Your task to perform on an android device: clear history in the chrome app Image 0: 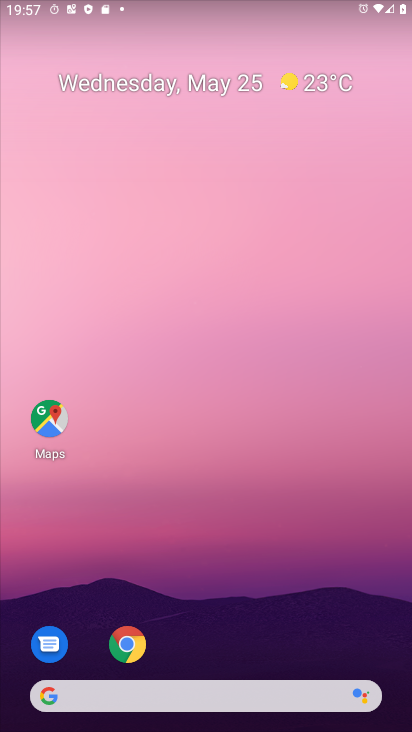
Step 0: drag from (260, 704) to (191, 218)
Your task to perform on an android device: clear history in the chrome app Image 1: 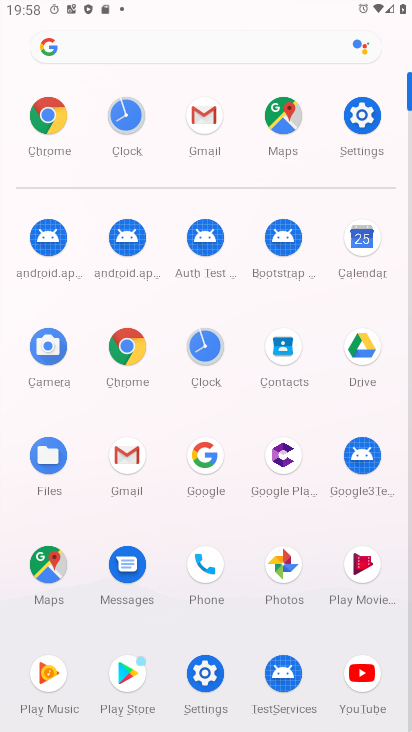
Step 1: click (40, 140)
Your task to perform on an android device: clear history in the chrome app Image 2: 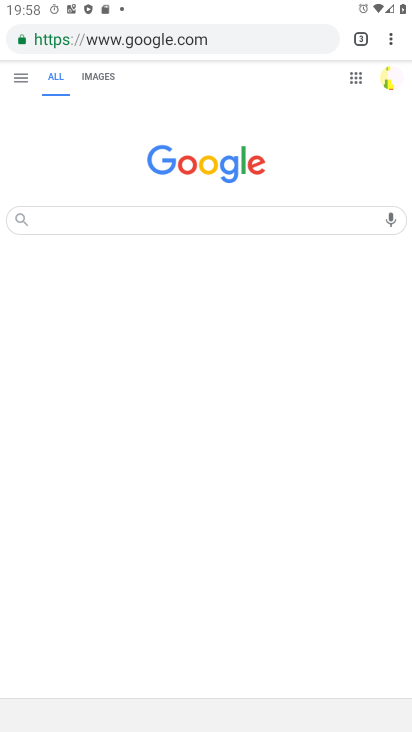
Step 2: click (386, 52)
Your task to perform on an android device: clear history in the chrome app Image 3: 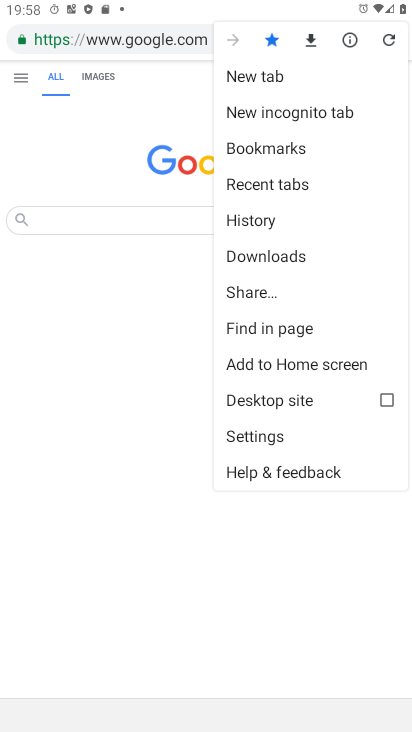
Step 3: click (271, 444)
Your task to perform on an android device: clear history in the chrome app Image 4: 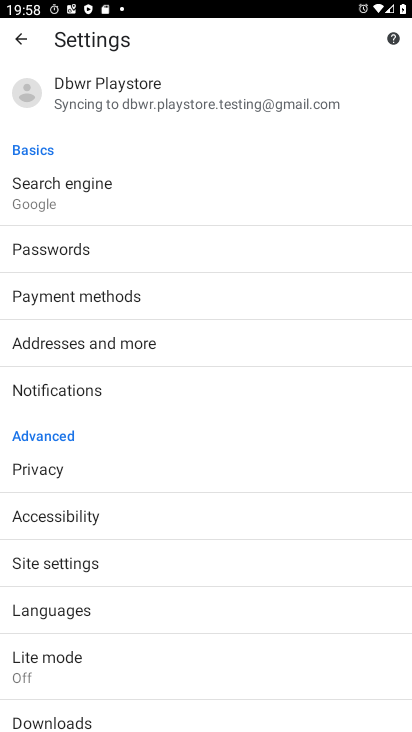
Step 4: click (56, 560)
Your task to perform on an android device: clear history in the chrome app Image 5: 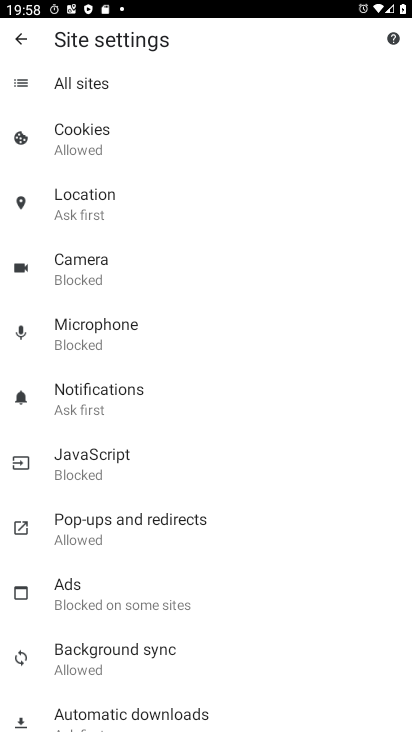
Step 5: click (29, 47)
Your task to perform on an android device: clear history in the chrome app Image 6: 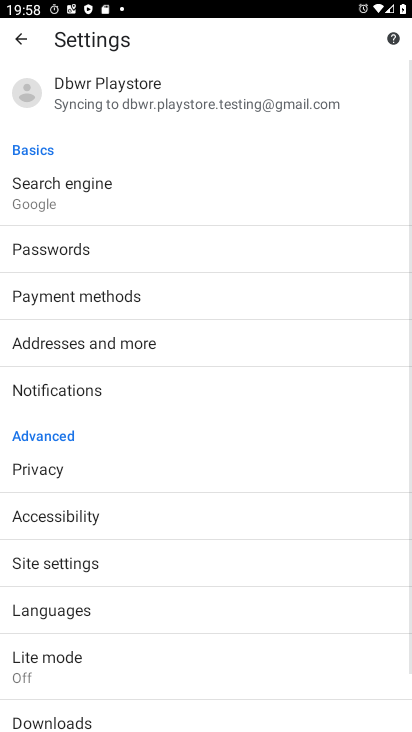
Step 6: click (71, 469)
Your task to perform on an android device: clear history in the chrome app Image 7: 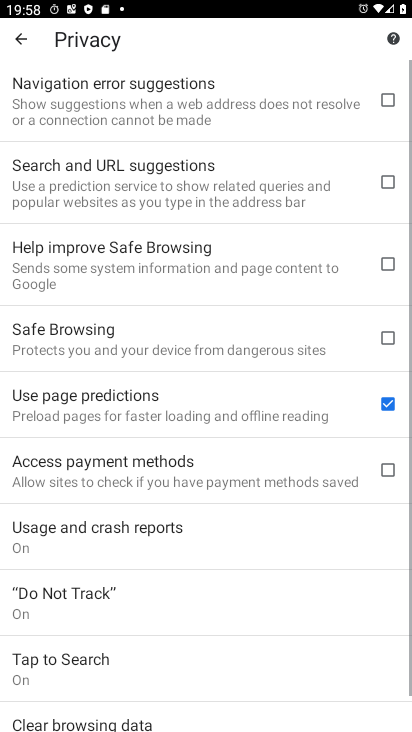
Step 7: drag from (224, 619) to (249, 383)
Your task to perform on an android device: clear history in the chrome app Image 8: 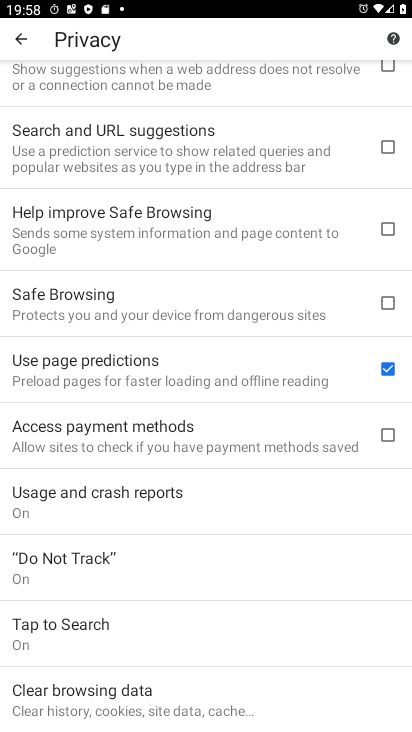
Step 8: click (139, 681)
Your task to perform on an android device: clear history in the chrome app Image 9: 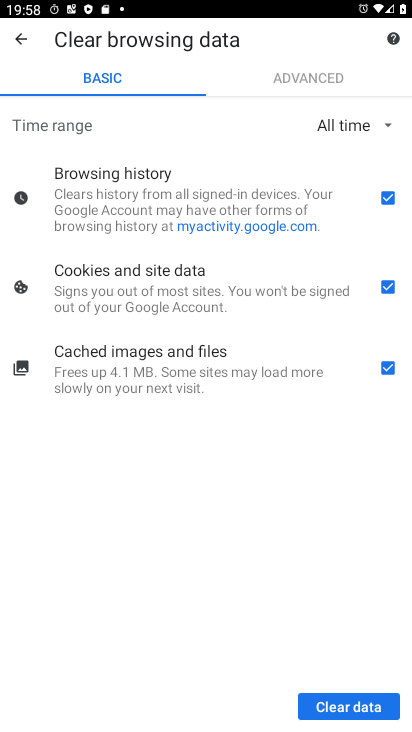
Step 9: click (388, 363)
Your task to perform on an android device: clear history in the chrome app Image 10: 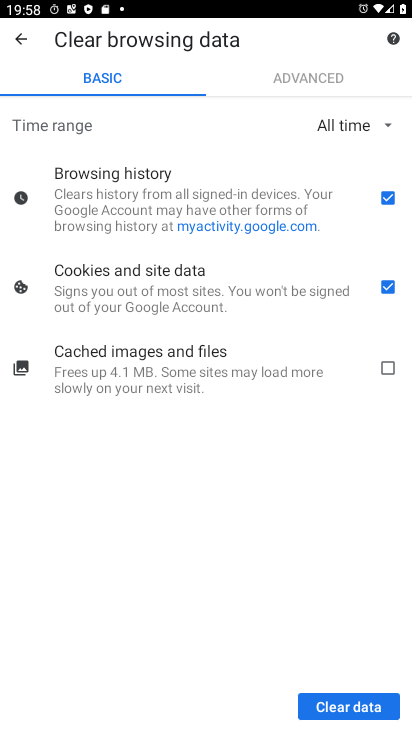
Step 10: click (385, 294)
Your task to perform on an android device: clear history in the chrome app Image 11: 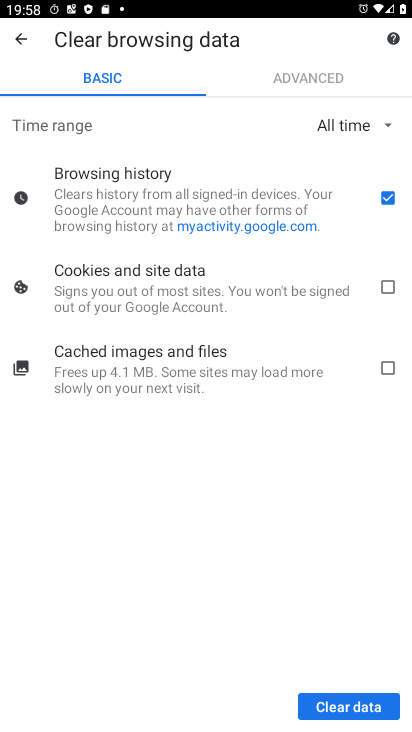
Step 11: click (339, 705)
Your task to perform on an android device: clear history in the chrome app Image 12: 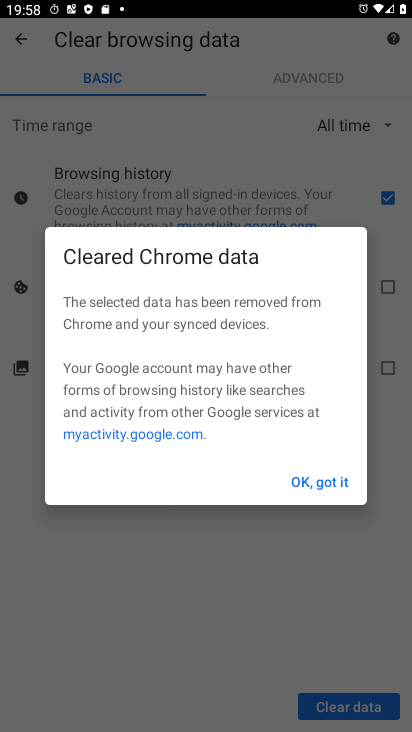
Step 12: click (317, 483)
Your task to perform on an android device: clear history in the chrome app Image 13: 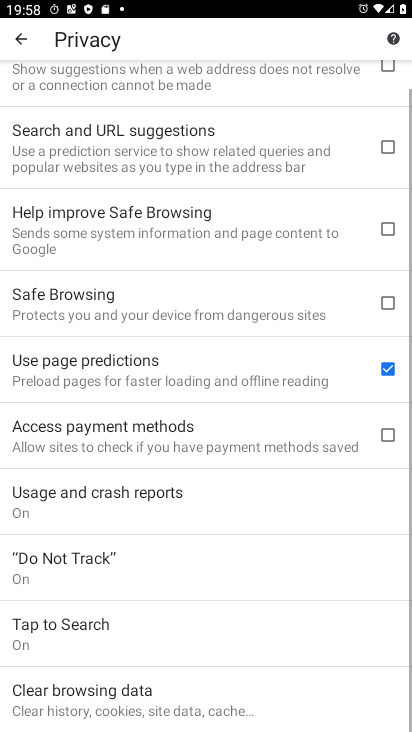
Step 13: task complete